Your task to perform on an android device: Is it going to rain tomorrow? Image 0: 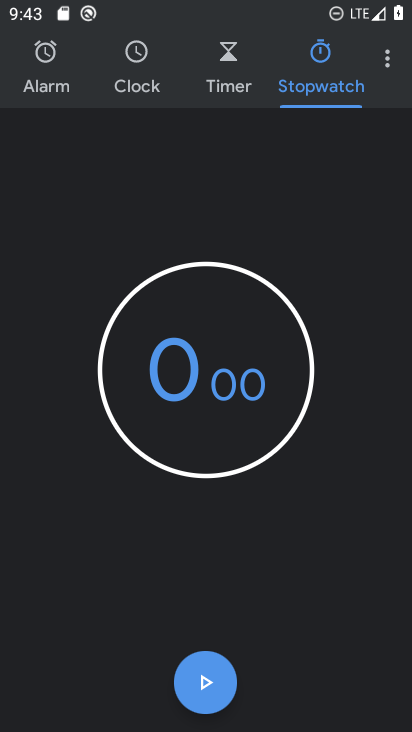
Step 0: press home button
Your task to perform on an android device: Is it going to rain tomorrow? Image 1: 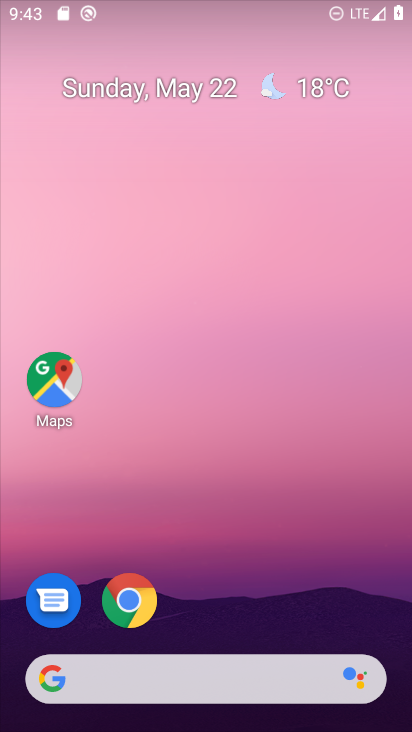
Step 1: drag from (364, 630) to (336, 78)
Your task to perform on an android device: Is it going to rain tomorrow? Image 2: 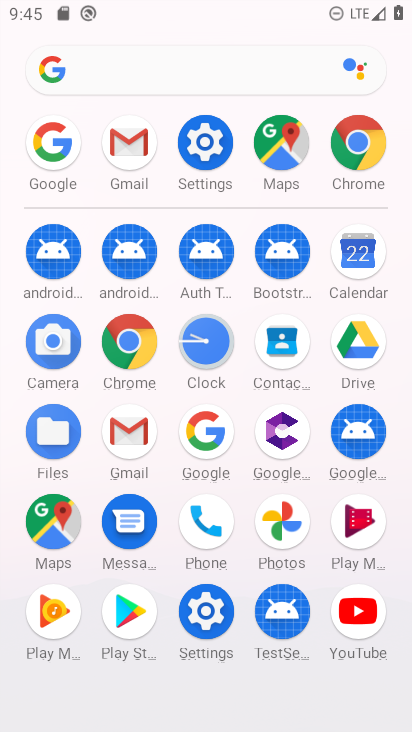
Step 2: click (202, 432)
Your task to perform on an android device: Is it going to rain tomorrow? Image 3: 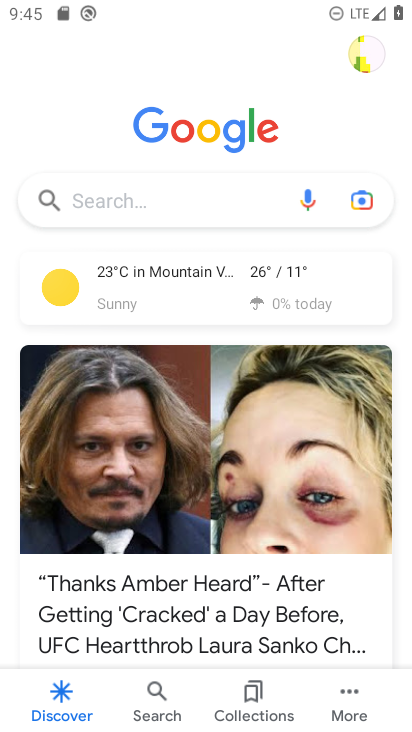
Step 3: click (158, 204)
Your task to perform on an android device: Is it going to rain tomorrow? Image 4: 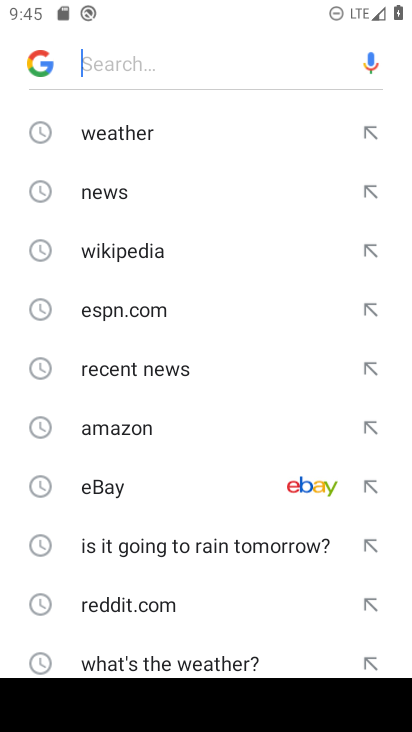
Step 4: click (199, 542)
Your task to perform on an android device: Is it going to rain tomorrow? Image 5: 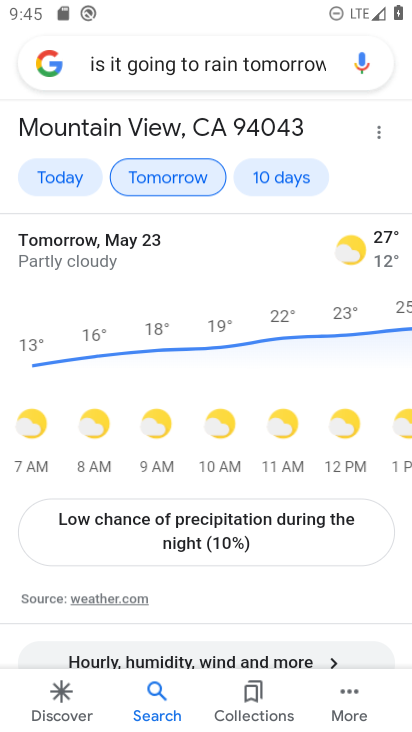
Step 5: task complete